Your task to perform on an android device: What's on my calendar tomorrow? Image 0: 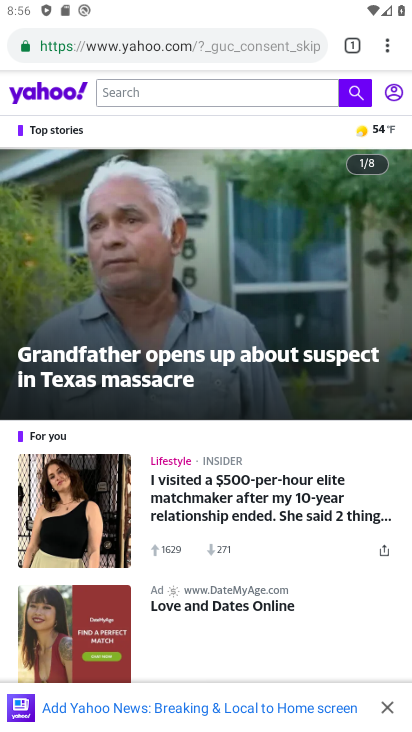
Step 0: press home button
Your task to perform on an android device: What's on my calendar tomorrow? Image 1: 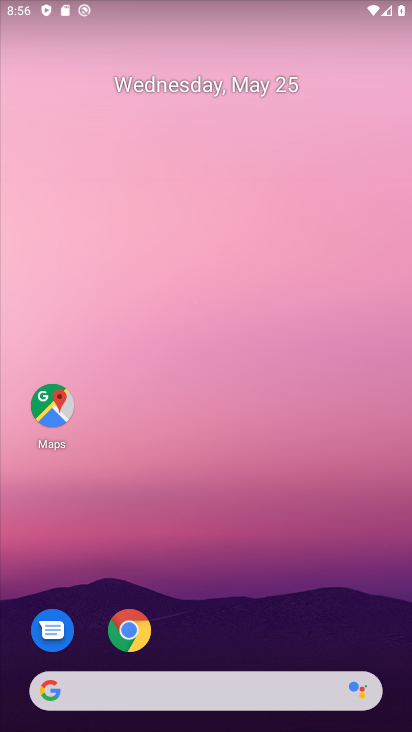
Step 1: drag from (293, 629) to (273, 148)
Your task to perform on an android device: What's on my calendar tomorrow? Image 2: 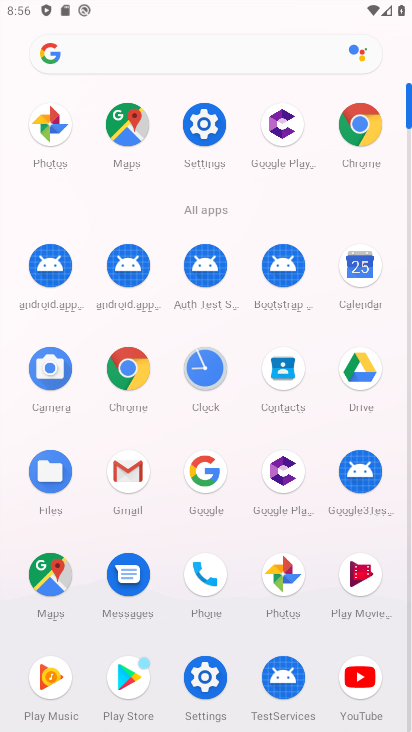
Step 2: click (364, 272)
Your task to perform on an android device: What's on my calendar tomorrow? Image 3: 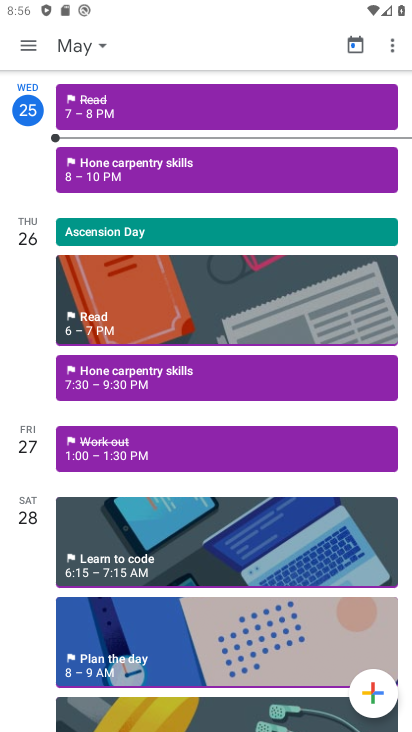
Step 3: click (81, 48)
Your task to perform on an android device: What's on my calendar tomorrow? Image 4: 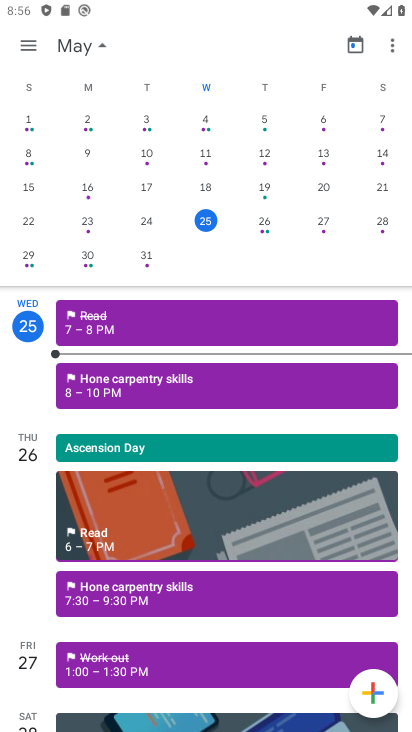
Step 4: click (260, 220)
Your task to perform on an android device: What's on my calendar tomorrow? Image 5: 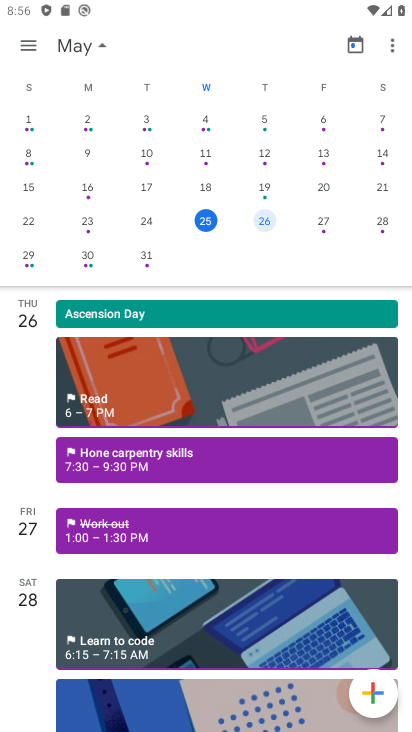
Step 5: task complete